Your task to perform on an android device: toggle translation in the chrome app Image 0: 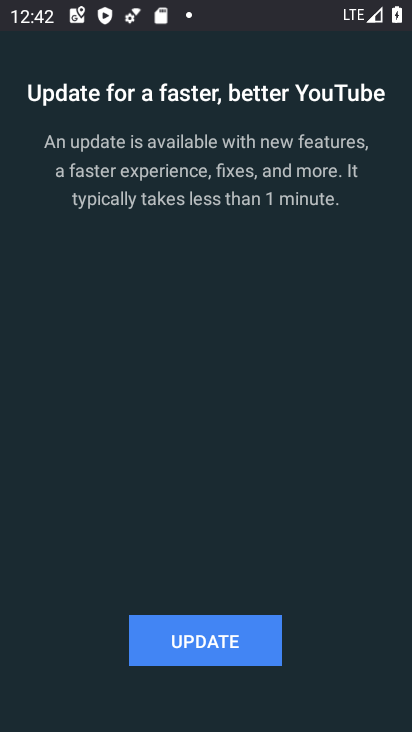
Step 0: press home button
Your task to perform on an android device: toggle translation in the chrome app Image 1: 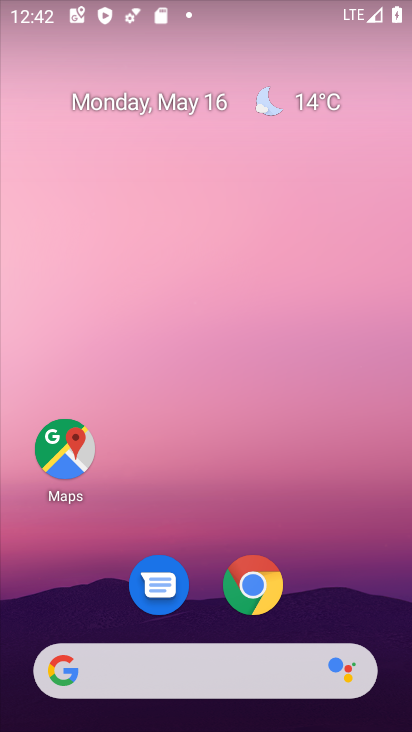
Step 1: drag from (231, 504) to (181, 69)
Your task to perform on an android device: toggle translation in the chrome app Image 2: 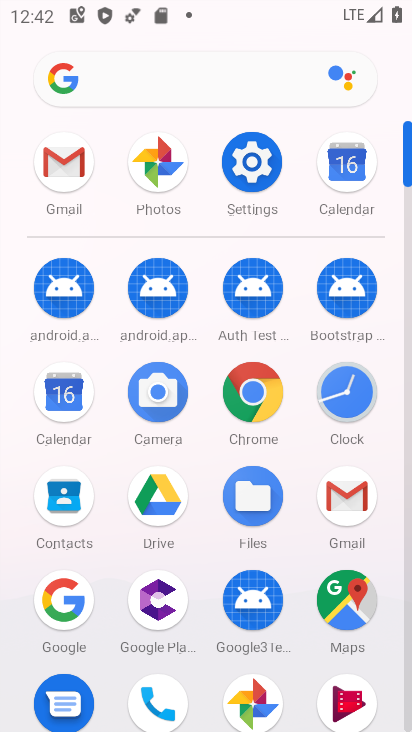
Step 2: click (267, 393)
Your task to perform on an android device: toggle translation in the chrome app Image 3: 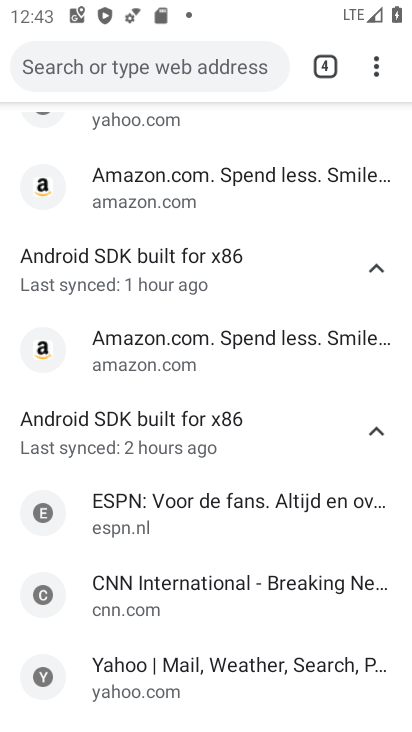
Step 3: click (376, 58)
Your task to perform on an android device: toggle translation in the chrome app Image 4: 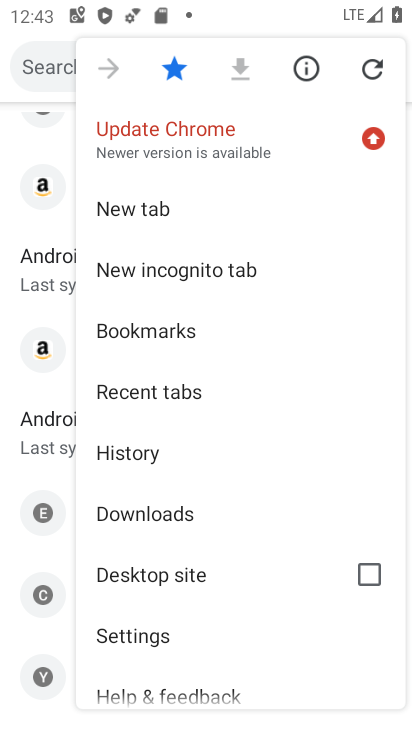
Step 4: click (197, 639)
Your task to perform on an android device: toggle translation in the chrome app Image 5: 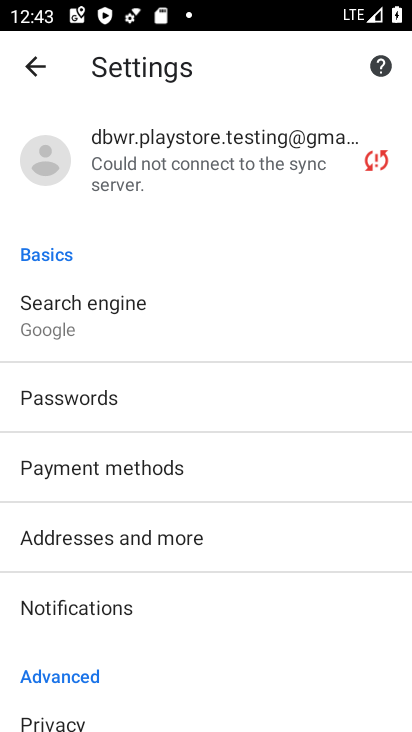
Step 5: drag from (237, 588) to (214, 207)
Your task to perform on an android device: toggle translation in the chrome app Image 6: 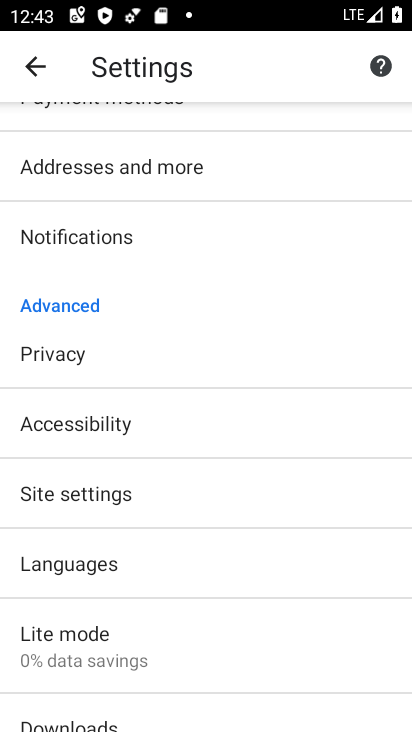
Step 6: click (223, 570)
Your task to perform on an android device: toggle translation in the chrome app Image 7: 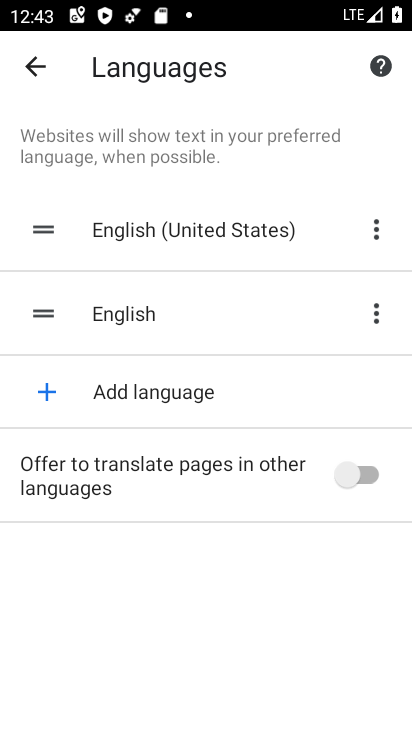
Step 7: click (358, 469)
Your task to perform on an android device: toggle translation in the chrome app Image 8: 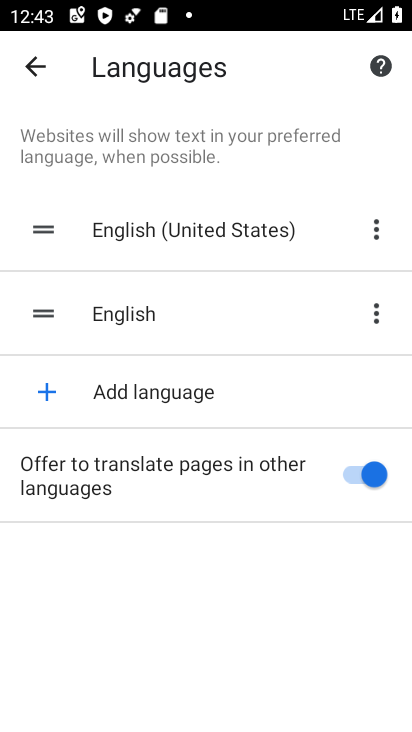
Step 8: task complete